Your task to perform on an android device: choose inbox layout in the gmail app Image 0: 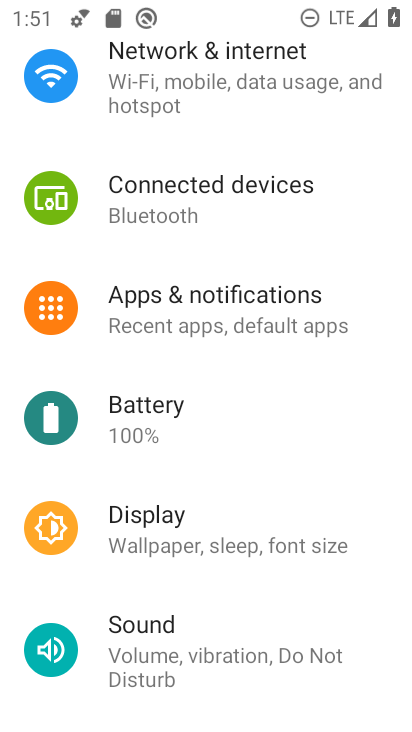
Step 0: drag from (285, 418) to (321, 261)
Your task to perform on an android device: choose inbox layout in the gmail app Image 1: 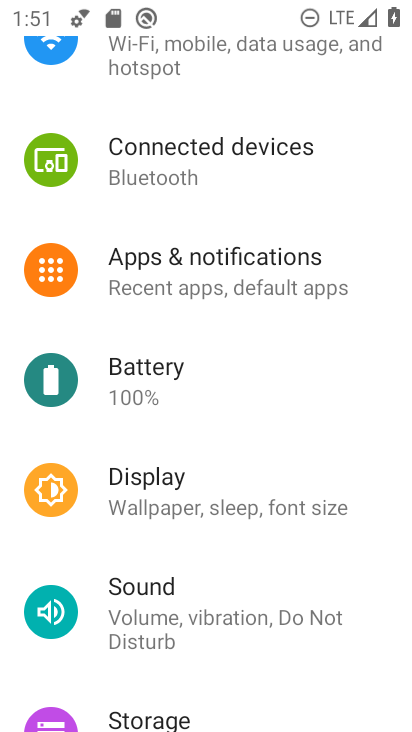
Step 1: press home button
Your task to perform on an android device: choose inbox layout in the gmail app Image 2: 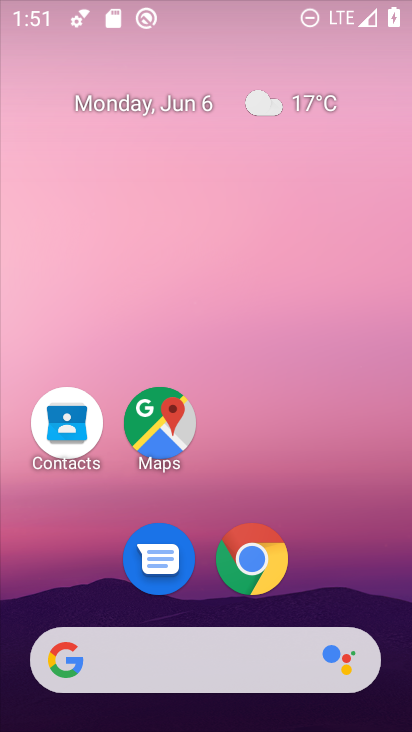
Step 2: drag from (212, 670) to (251, 183)
Your task to perform on an android device: choose inbox layout in the gmail app Image 3: 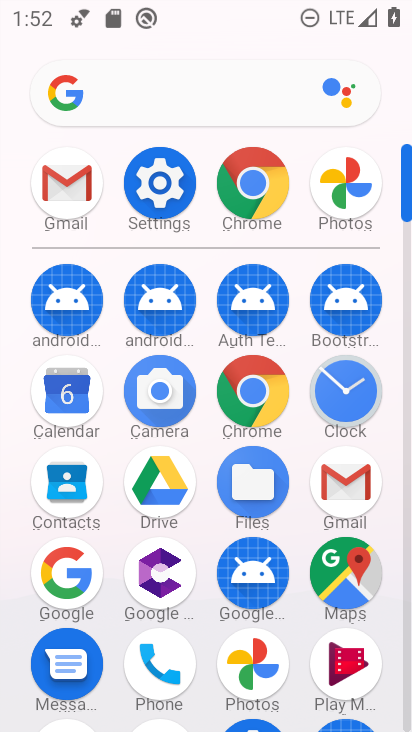
Step 3: click (346, 482)
Your task to perform on an android device: choose inbox layout in the gmail app Image 4: 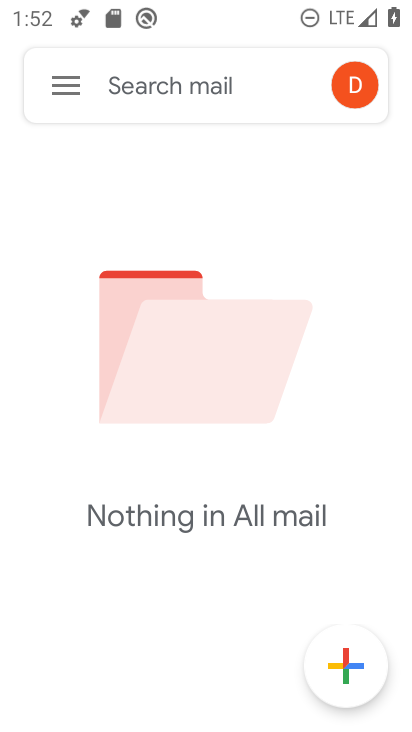
Step 4: click (63, 81)
Your task to perform on an android device: choose inbox layout in the gmail app Image 5: 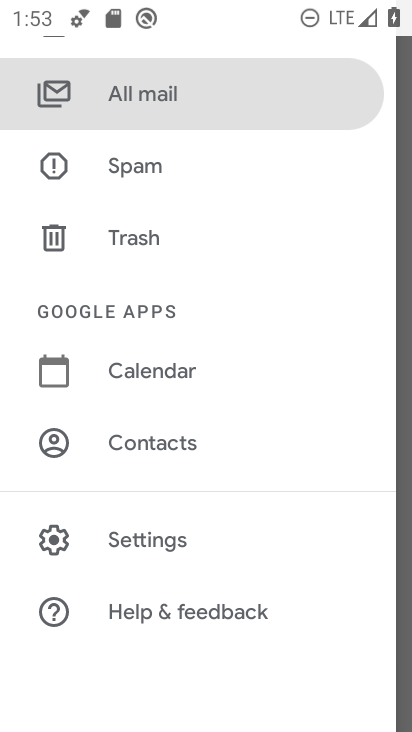
Step 5: task complete